Your task to perform on an android device: change the clock display to digital Image 0: 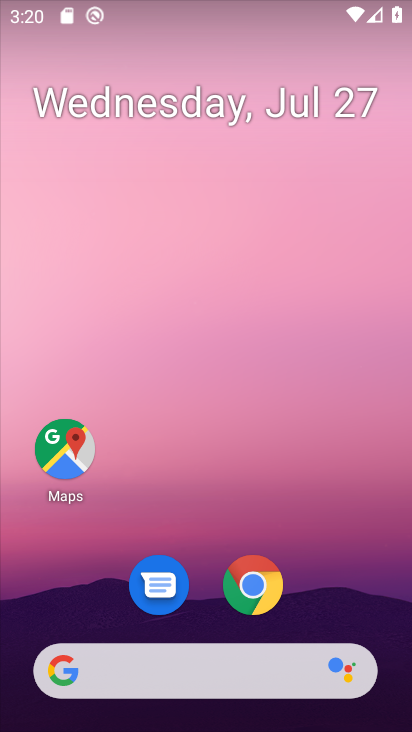
Step 0: drag from (225, 466) to (226, 44)
Your task to perform on an android device: change the clock display to digital Image 1: 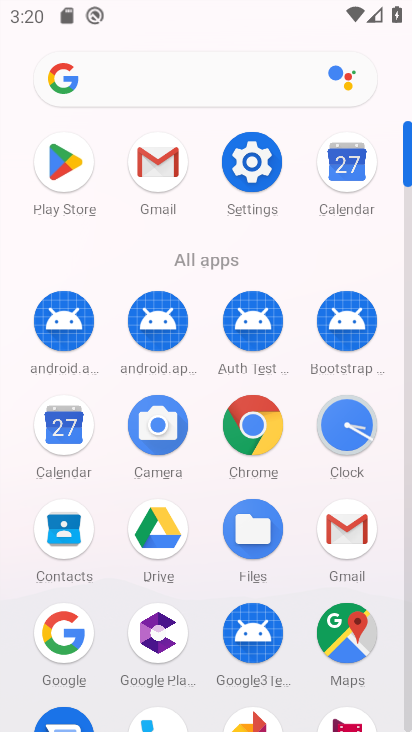
Step 1: click (352, 419)
Your task to perform on an android device: change the clock display to digital Image 2: 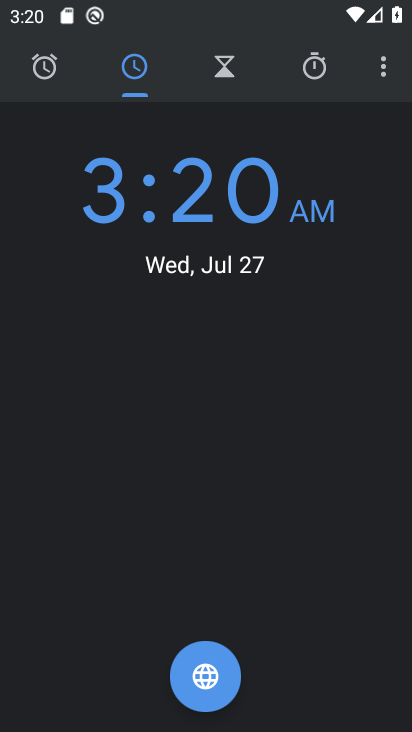
Step 2: task complete